Your task to perform on an android device: turn off notifications in google photos Image 0: 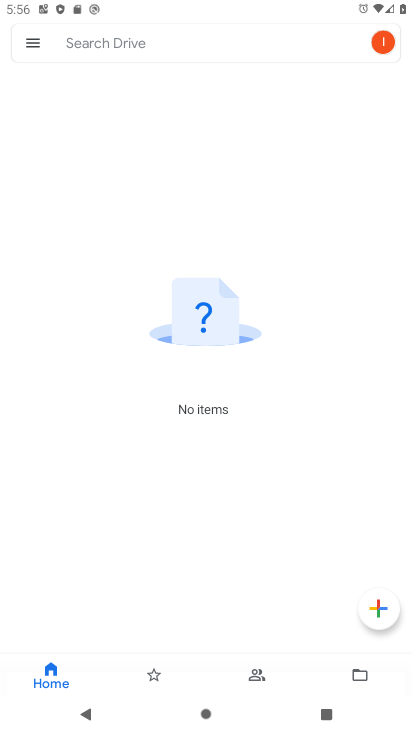
Step 0: press home button
Your task to perform on an android device: turn off notifications in google photos Image 1: 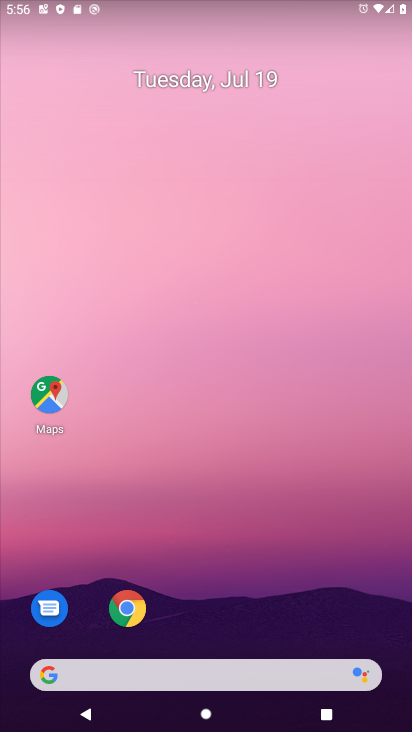
Step 1: drag from (304, 613) to (305, 92)
Your task to perform on an android device: turn off notifications in google photos Image 2: 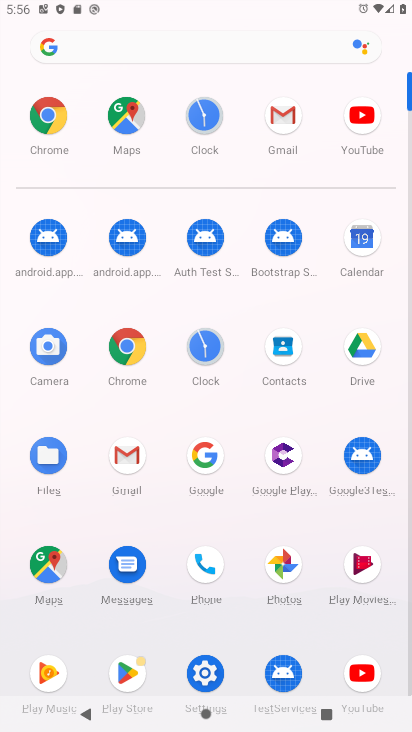
Step 2: click (285, 564)
Your task to perform on an android device: turn off notifications in google photos Image 3: 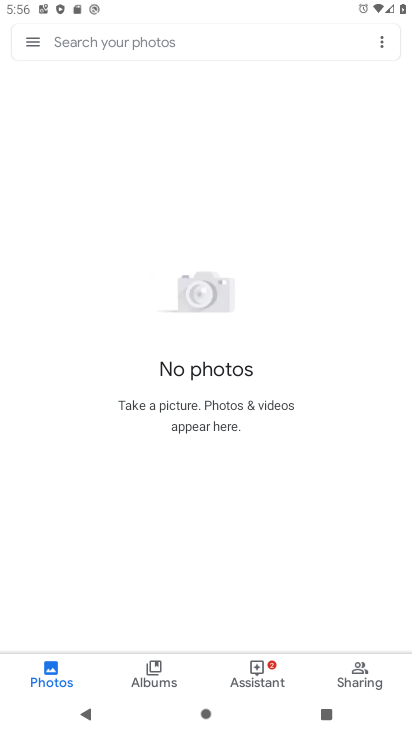
Step 3: click (27, 44)
Your task to perform on an android device: turn off notifications in google photos Image 4: 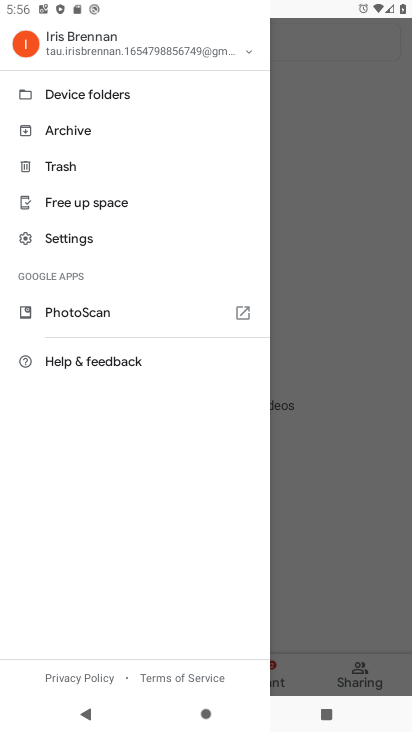
Step 4: click (88, 239)
Your task to perform on an android device: turn off notifications in google photos Image 5: 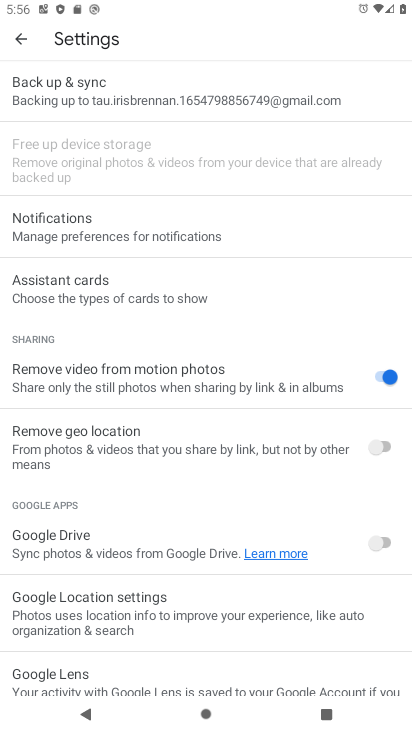
Step 5: click (88, 239)
Your task to perform on an android device: turn off notifications in google photos Image 6: 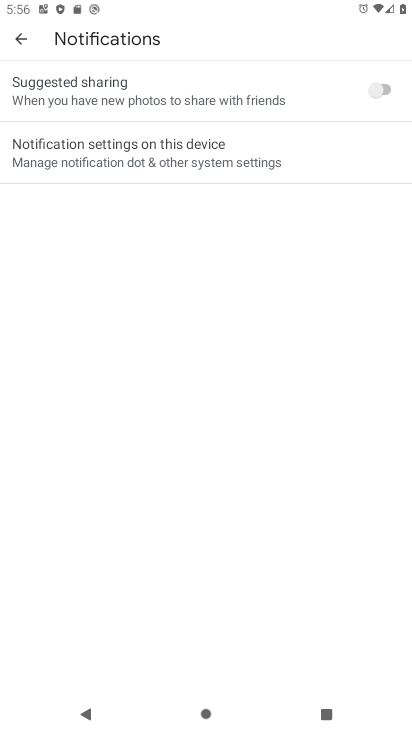
Step 6: click (348, 144)
Your task to perform on an android device: turn off notifications in google photos Image 7: 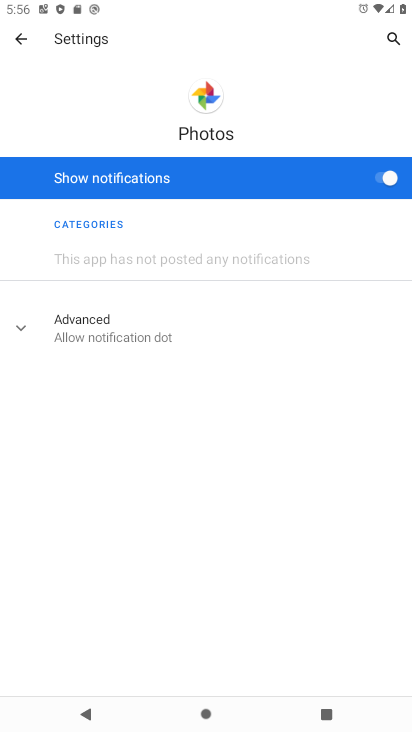
Step 7: click (383, 177)
Your task to perform on an android device: turn off notifications in google photos Image 8: 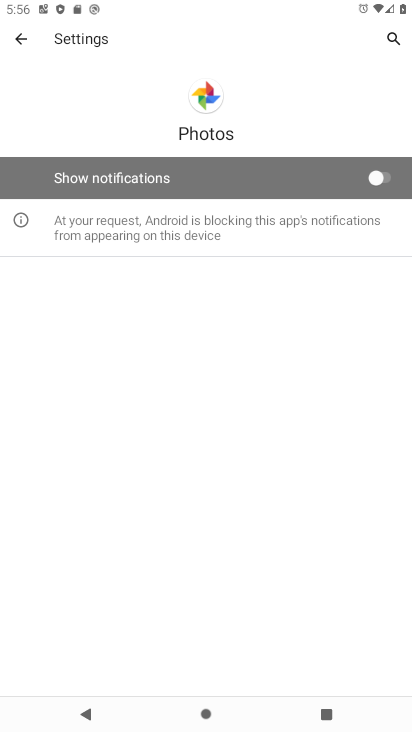
Step 8: task complete